Your task to perform on an android device: turn pop-ups off in chrome Image 0: 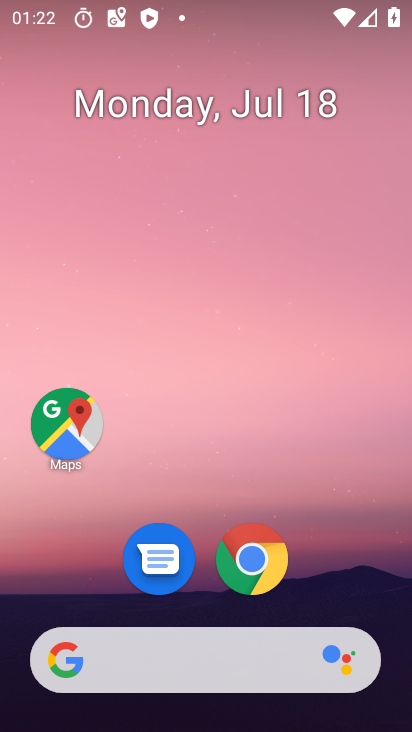
Step 0: drag from (103, 565) to (242, 12)
Your task to perform on an android device: turn pop-ups off in chrome Image 1: 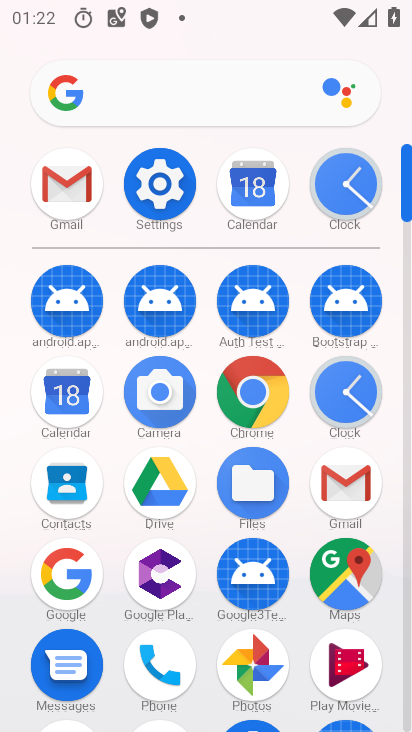
Step 1: click (160, 181)
Your task to perform on an android device: turn pop-ups off in chrome Image 2: 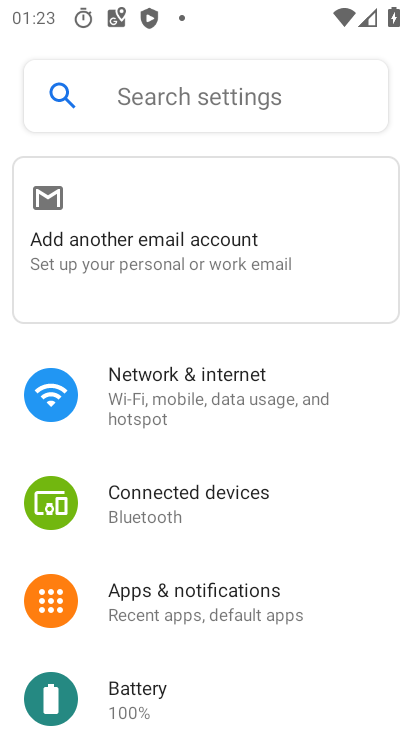
Step 2: press back button
Your task to perform on an android device: turn pop-ups off in chrome Image 3: 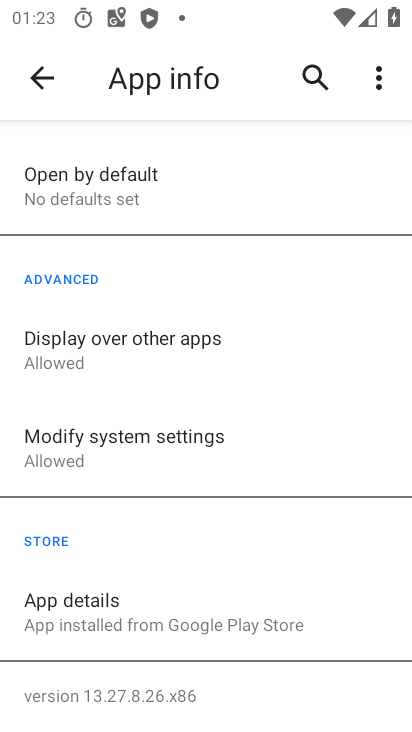
Step 3: press back button
Your task to perform on an android device: turn pop-ups off in chrome Image 4: 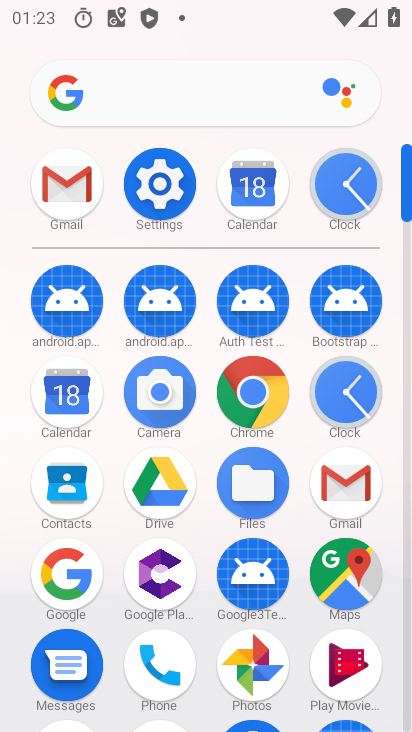
Step 4: click (268, 392)
Your task to perform on an android device: turn pop-ups off in chrome Image 5: 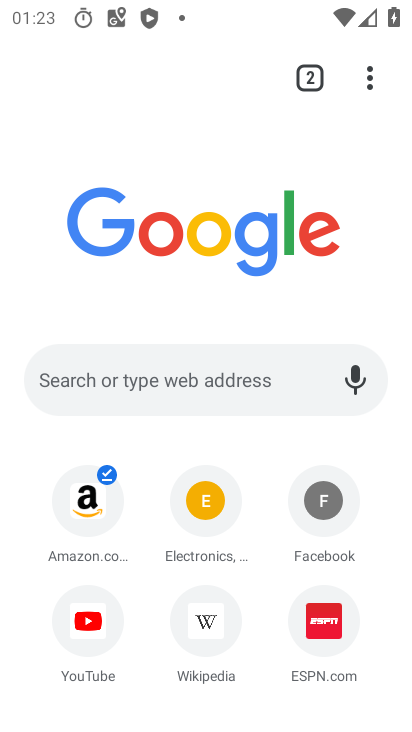
Step 5: drag from (370, 76) to (86, 641)
Your task to perform on an android device: turn pop-ups off in chrome Image 6: 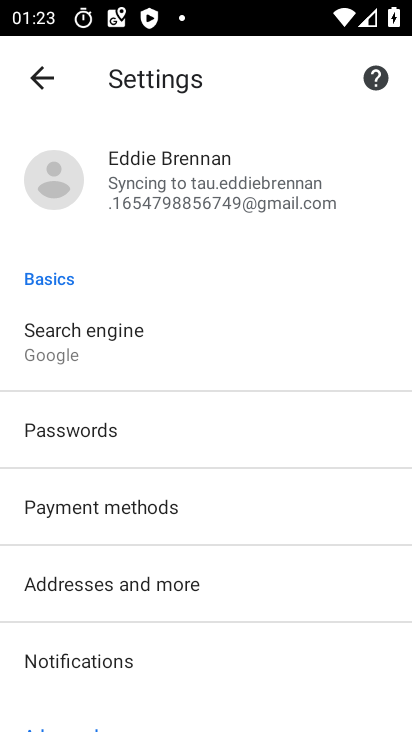
Step 6: drag from (183, 484) to (263, 59)
Your task to perform on an android device: turn pop-ups off in chrome Image 7: 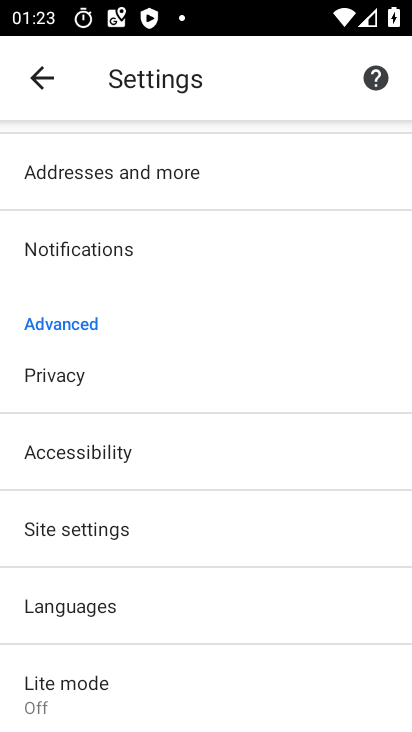
Step 7: click (71, 533)
Your task to perform on an android device: turn pop-ups off in chrome Image 8: 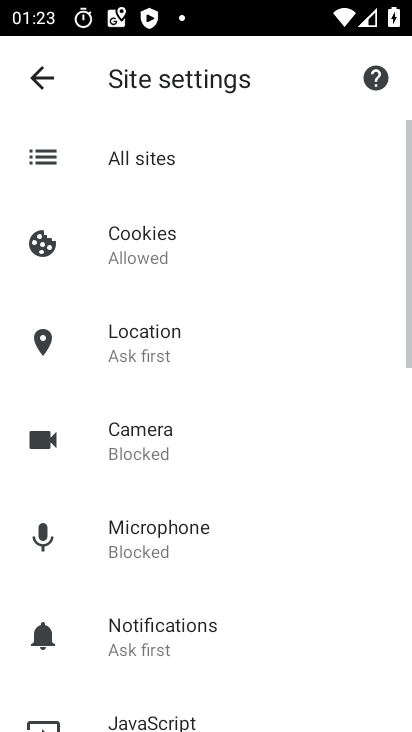
Step 8: drag from (158, 680) to (255, 129)
Your task to perform on an android device: turn pop-ups off in chrome Image 9: 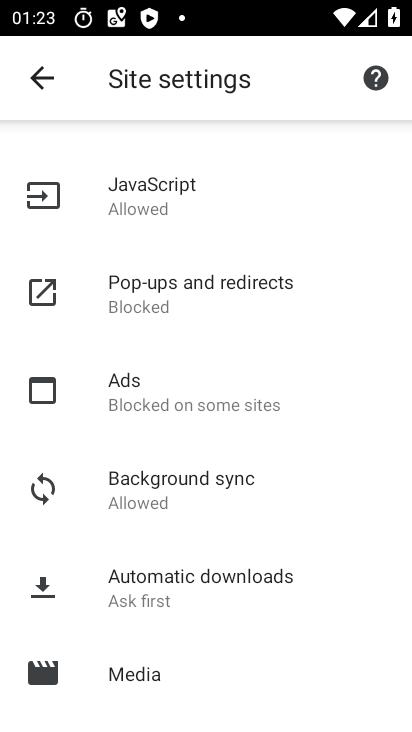
Step 9: click (139, 296)
Your task to perform on an android device: turn pop-ups off in chrome Image 10: 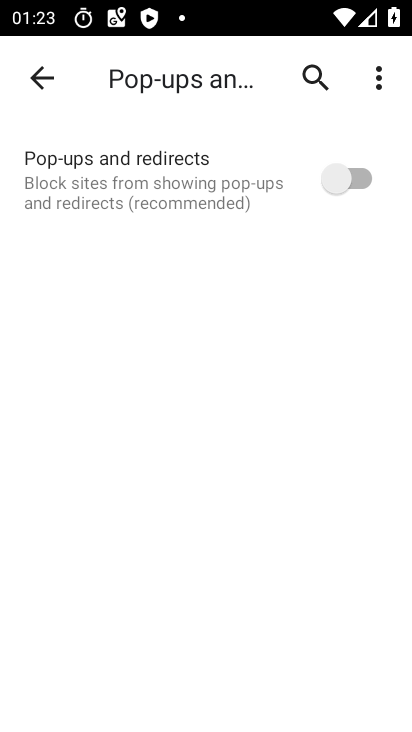
Step 10: task complete